Your task to perform on an android device: allow notifications from all sites in the chrome app Image 0: 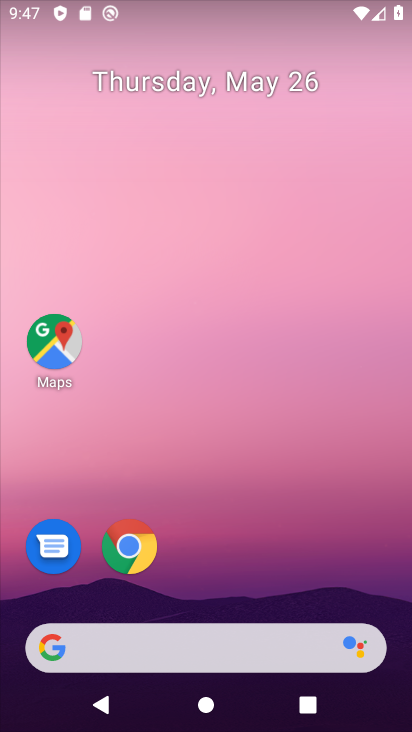
Step 0: click (130, 546)
Your task to perform on an android device: allow notifications from all sites in the chrome app Image 1: 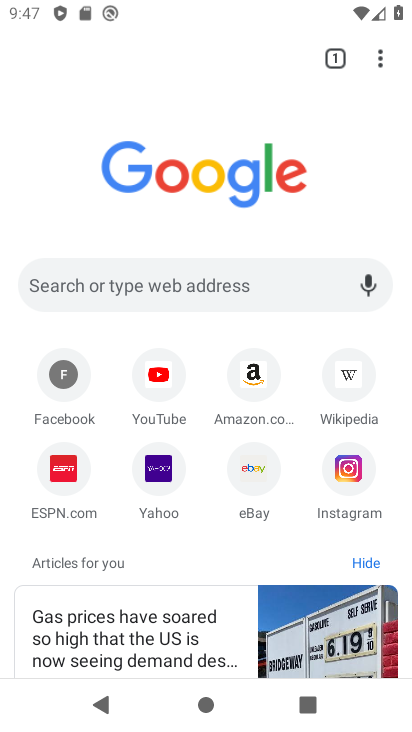
Step 1: click (380, 59)
Your task to perform on an android device: allow notifications from all sites in the chrome app Image 2: 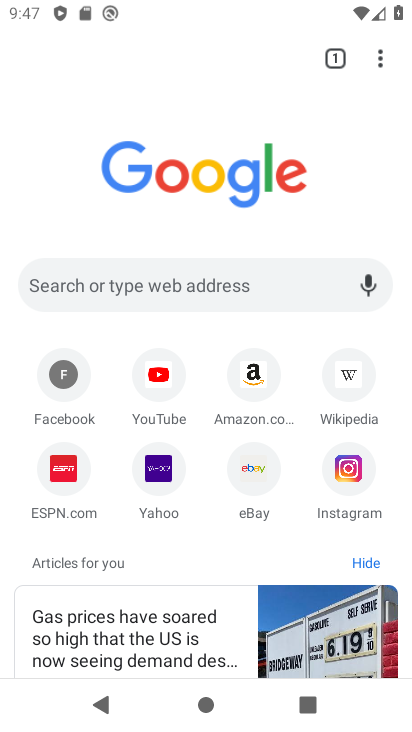
Step 2: click (380, 59)
Your task to perform on an android device: allow notifications from all sites in the chrome app Image 3: 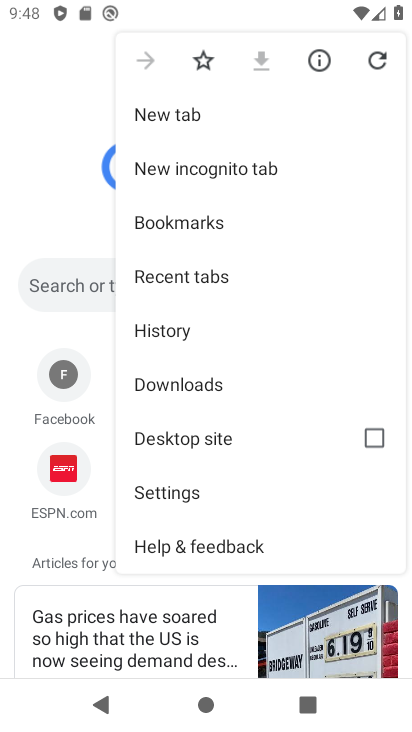
Step 3: click (166, 499)
Your task to perform on an android device: allow notifications from all sites in the chrome app Image 4: 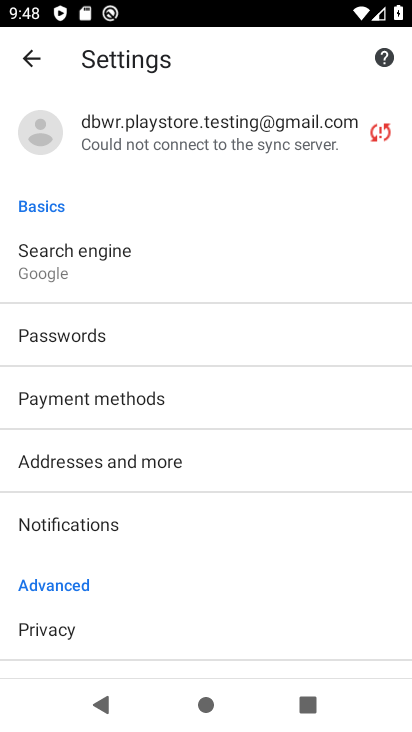
Step 4: drag from (91, 539) to (131, 454)
Your task to perform on an android device: allow notifications from all sites in the chrome app Image 5: 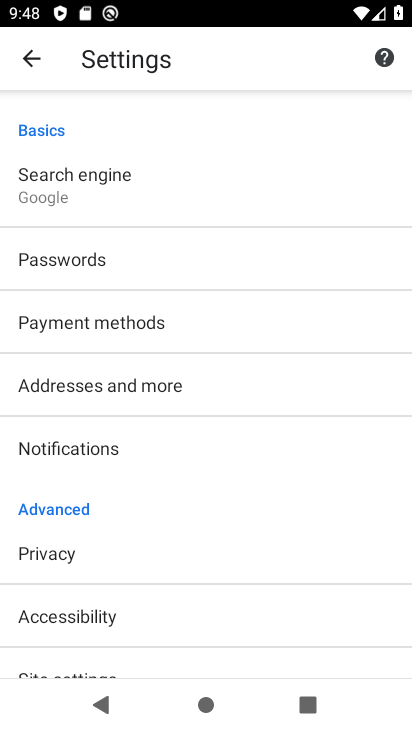
Step 5: drag from (86, 540) to (113, 466)
Your task to perform on an android device: allow notifications from all sites in the chrome app Image 6: 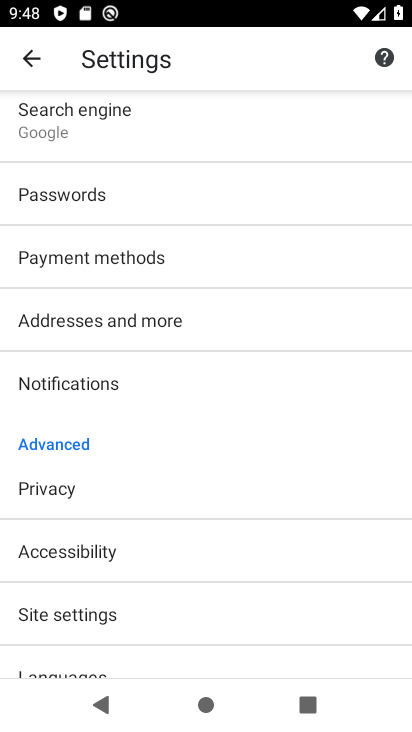
Step 6: drag from (55, 531) to (110, 455)
Your task to perform on an android device: allow notifications from all sites in the chrome app Image 7: 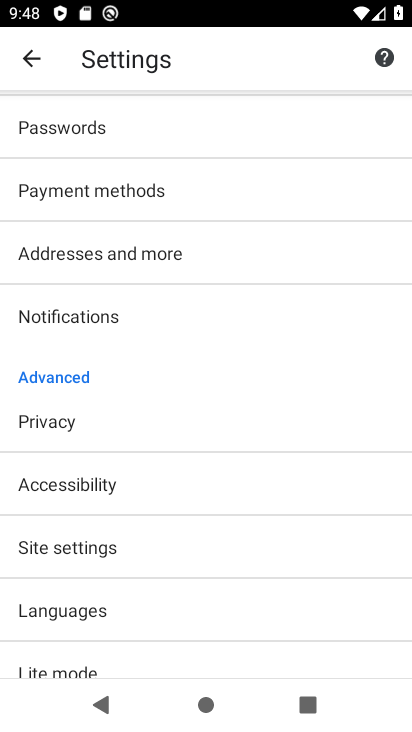
Step 7: drag from (61, 527) to (123, 448)
Your task to perform on an android device: allow notifications from all sites in the chrome app Image 8: 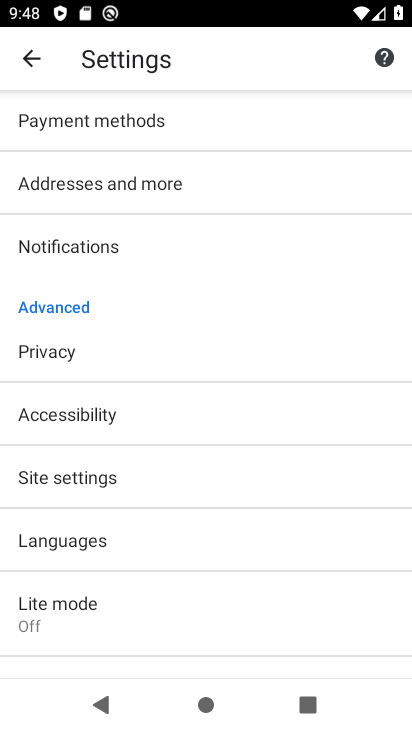
Step 8: click (85, 480)
Your task to perform on an android device: allow notifications from all sites in the chrome app Image 9: 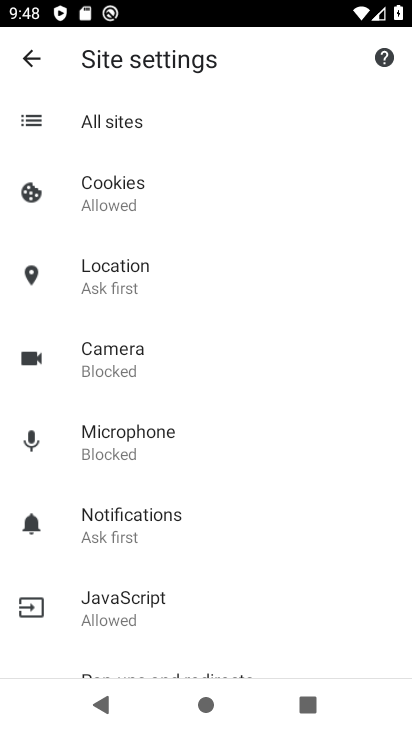
Step 9: drag from (130, 406) to (162, 343)
Your task to perform on an android device: allow notifications from all sites in the chrome app Image 10: 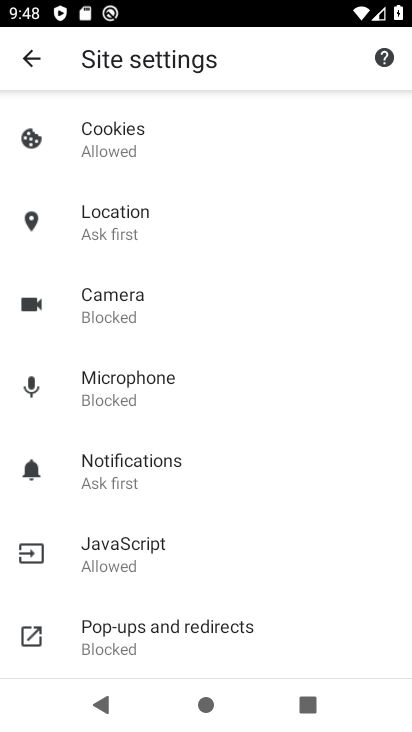
Step 10: click (157, 462)
Your task to perform on an android device: allow notifications from all sites in the chrome app Image 11: 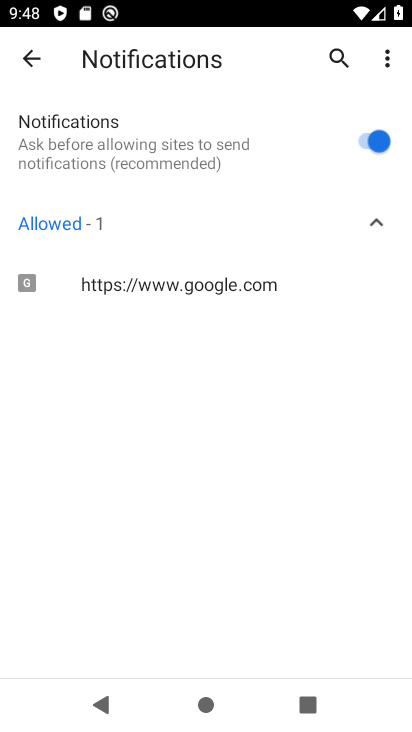
Step 11: task complete